Your task to perform on an android device: What is the news today? Image 0: 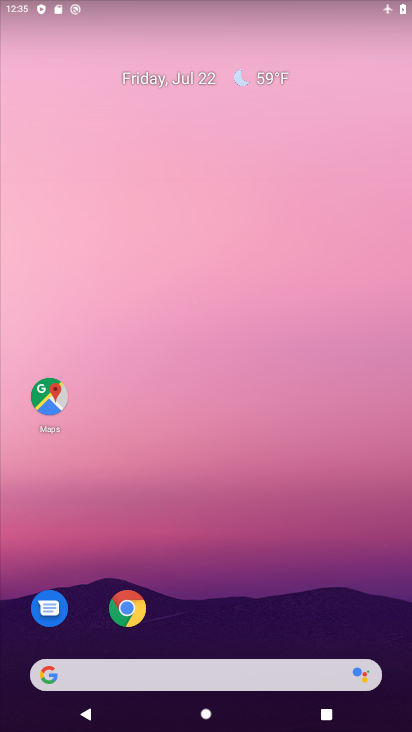
Step 0: drag from (224, 630) to (212, 3)
Your task to perform on an android device: What is the news today? Image 1: 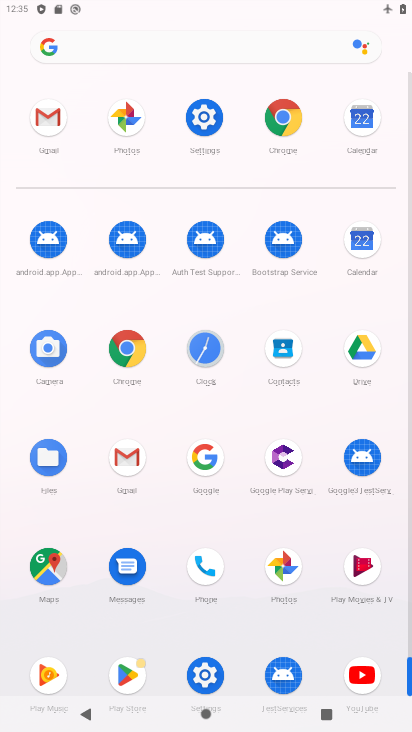
Step 1: click (174, 42)
Your task to perform on an android device: What is the news today? Image 2: 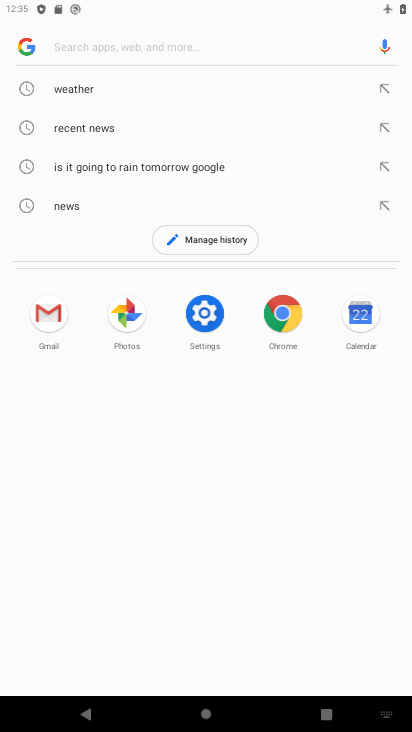
Step 2: type "news today ?"
Your task to perform on an android device: What is the news today? Image 3: 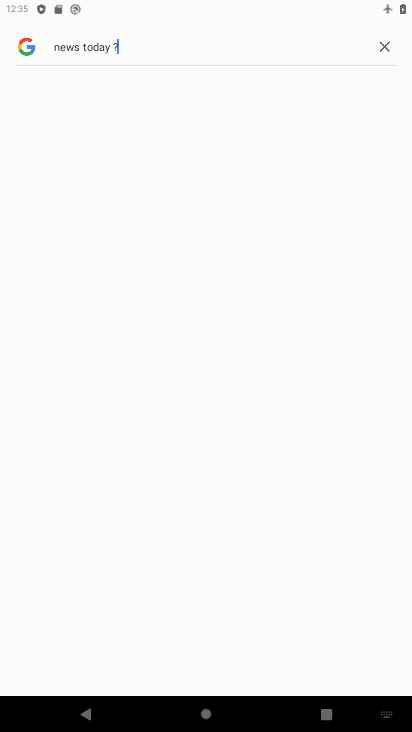
Step 3: task complete